Your task to perform on an android device: turn off improve location accuracy Image 0: 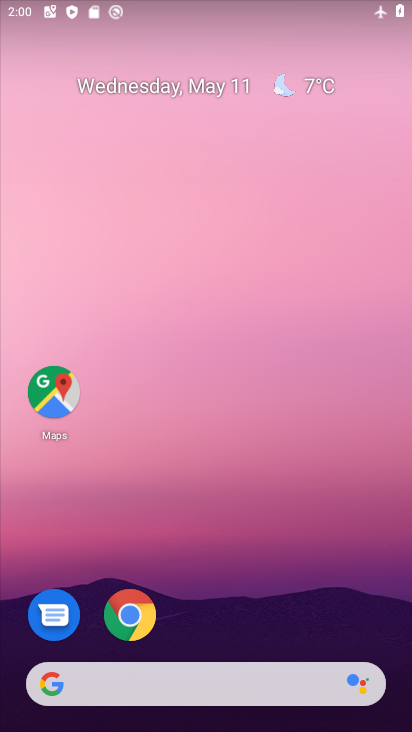
Step 0: drag from (303, 587) to (354, 109)
Your task to perform on an android device: turn off improve location accuracy Image 1: 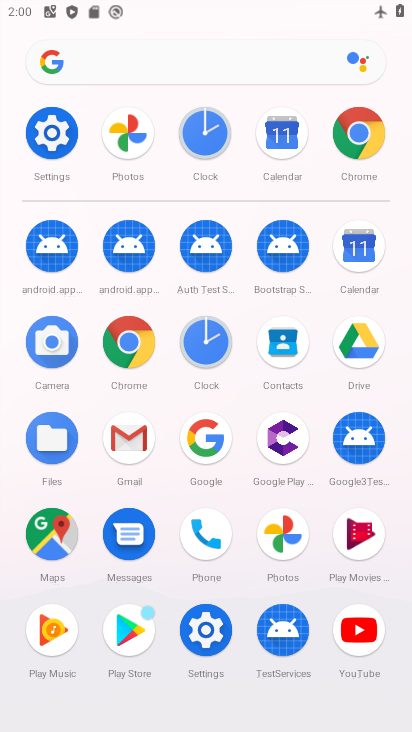
Step 1: click (61, 132)
Your task to perform on an android device: turn off improve location accuracy Image 2: 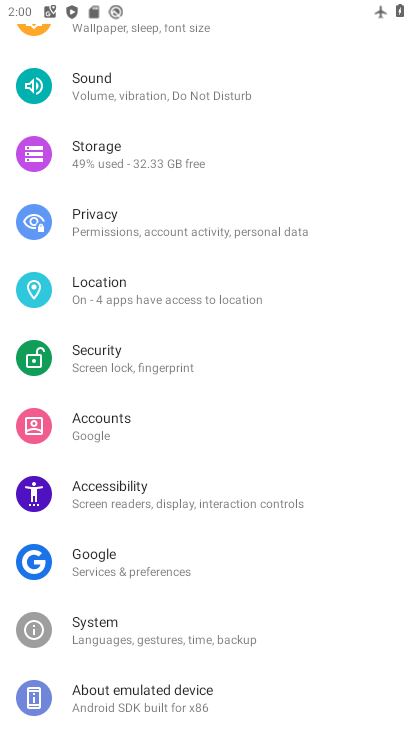
Step 2: click (202, 302)
Your task to perform on an android device: turn off improve location accuracy Image 3: 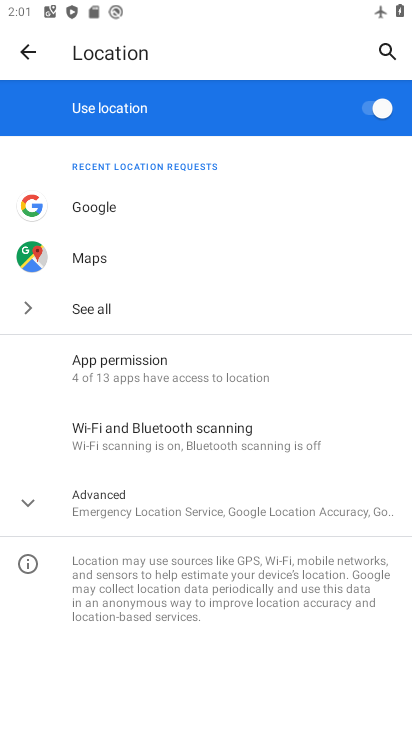
Step 3: click (122, 497)
Your task to perform on an android device: turn off improve location accuracy Image 4: 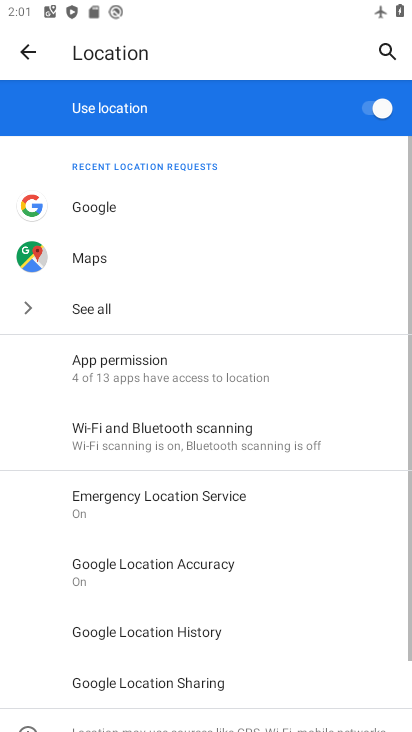
Step 4: drag from (284, 613) to (336, 371)
Your task to perform on an android device: turn off improve location accuracy Image 5: 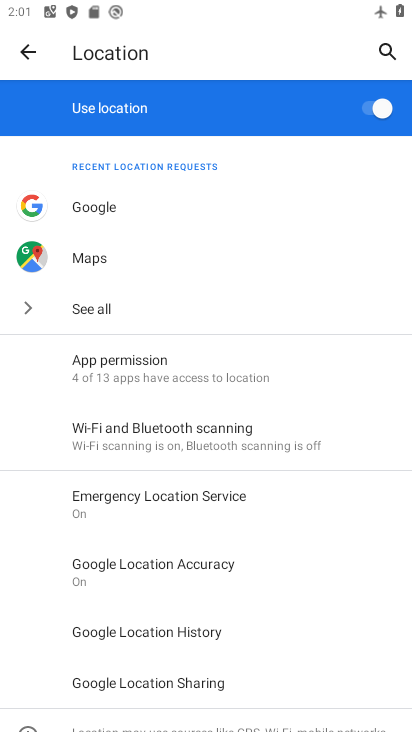
Step 5: click (164, 567)
Your task to perform on an android device: turn off improve location accuracy Image 6: 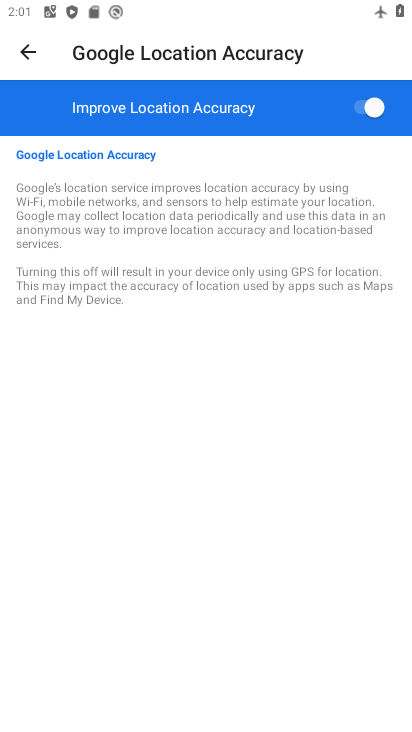
Step 6: click (376, 104)
Your task to perform on an android device: turn off improve location accuracy Image 7: 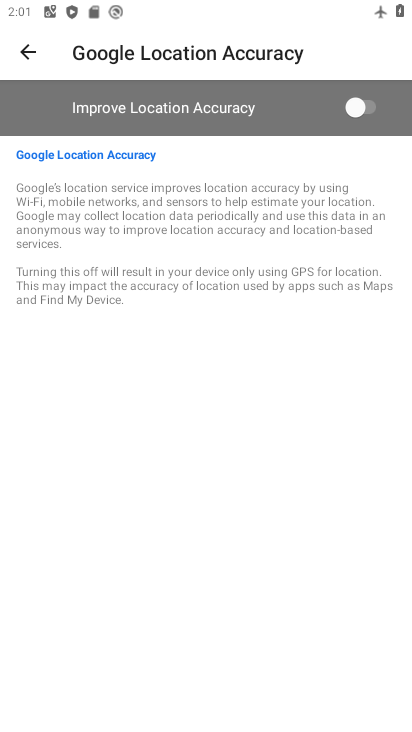
Step 7: task complete